Your task to perform on an android device: change notifications settings Image 0: 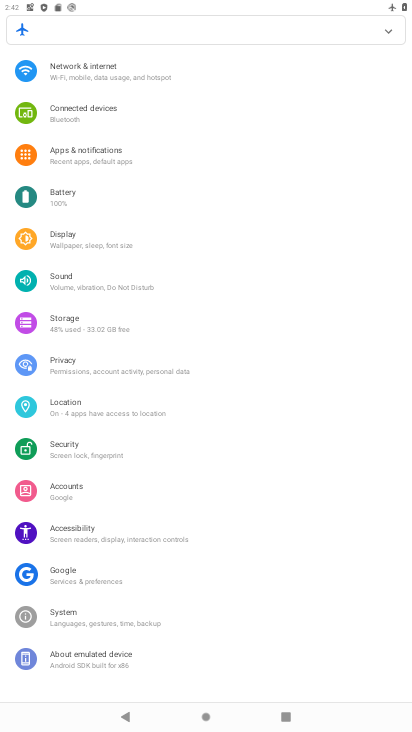
Step 0: click (151, 164)
Your task to perform on an android device: change notifications settings Image 1: 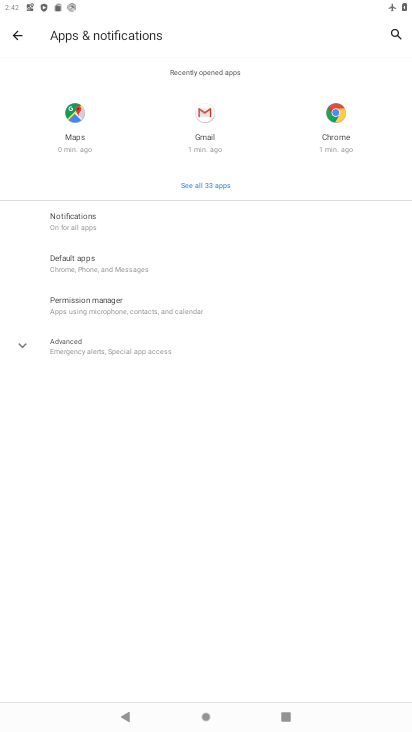
Step 1: click (83, 209)
Your task to perform on an android device: change notifications settings Image 2: 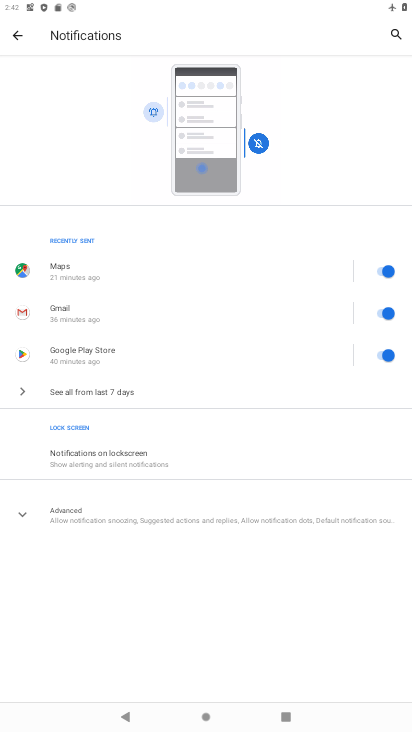
Step 2: click (206, 469)
Your task to perform on an android device: change notifications settings Image 3: 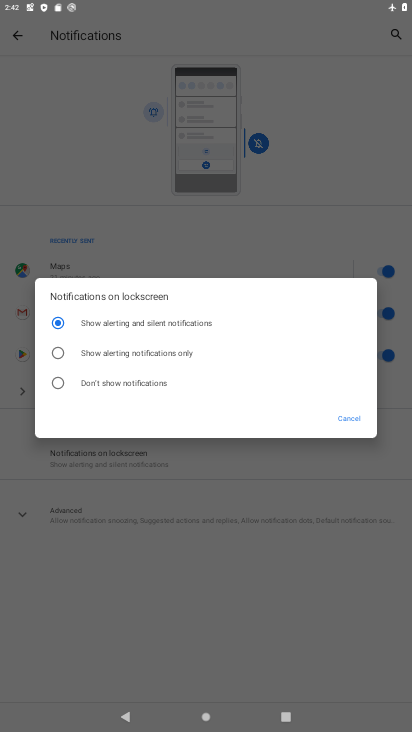
Step 3: click (181, 395)
Your task to perform on an android device: change notifications settings Image 4: 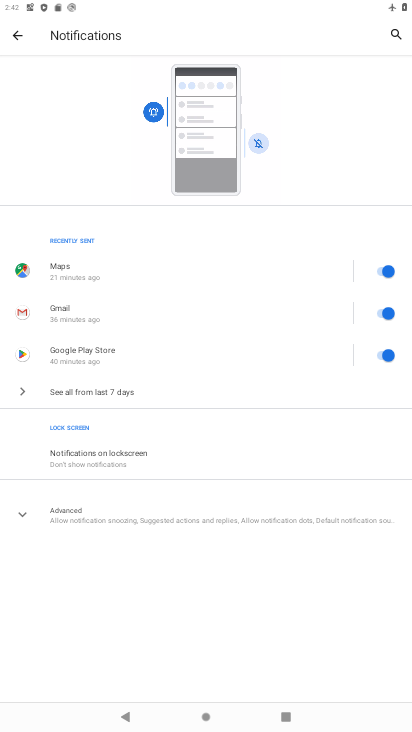
Step 4: task complete